Your task to perform on an android device: Open Amazon Image 0: 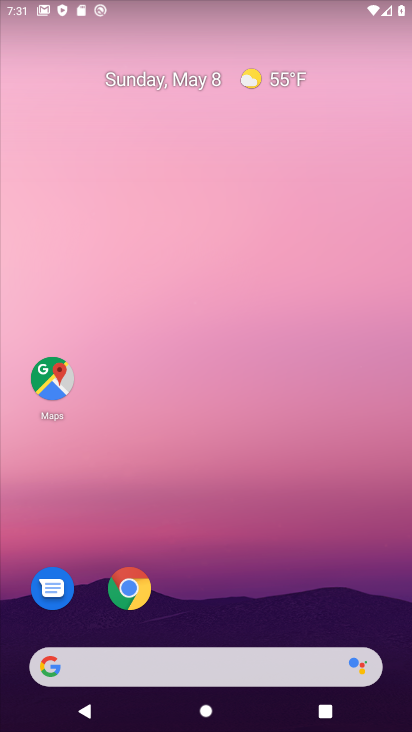
Step 0: drag from (325, 621) to (192, 142)
Your task to perform on an android device: Open Amazon Image 1: 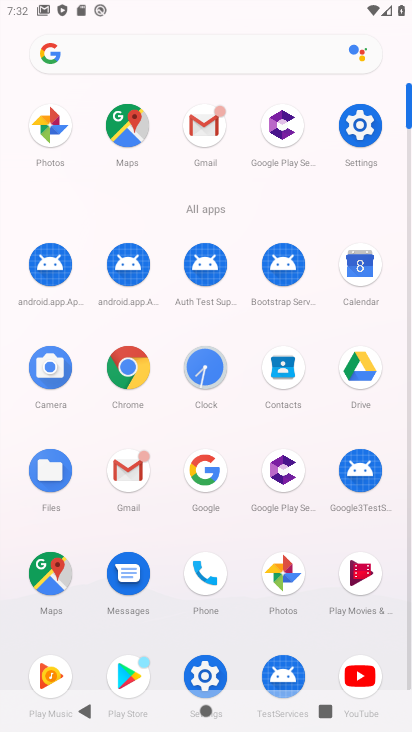
Step 1: click (146, 356)
Your task to perform on an android device: Open Amazon Image 2: 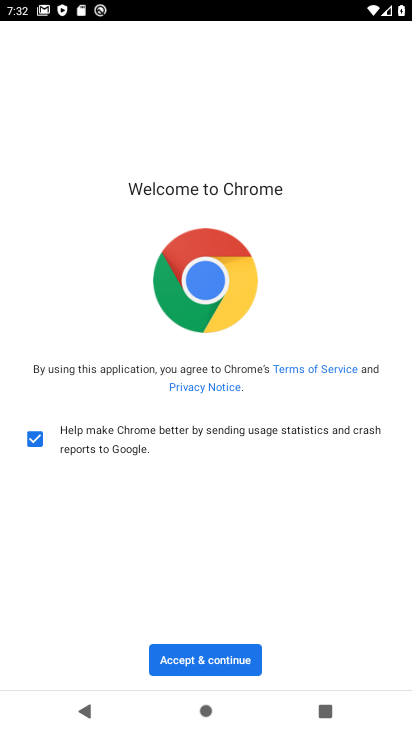
Step 2: click (233, 659)
Your task to perform on an android device: Open Amazon Image 3: 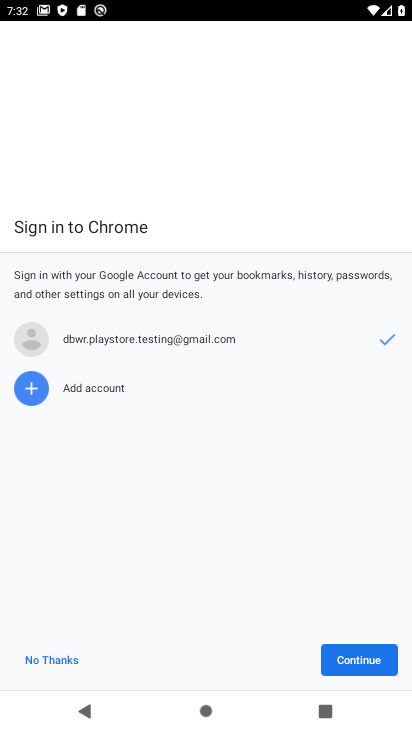
Step 3: click (356, 660)
Your task to perform on an android device: Open Amazon Image 4: 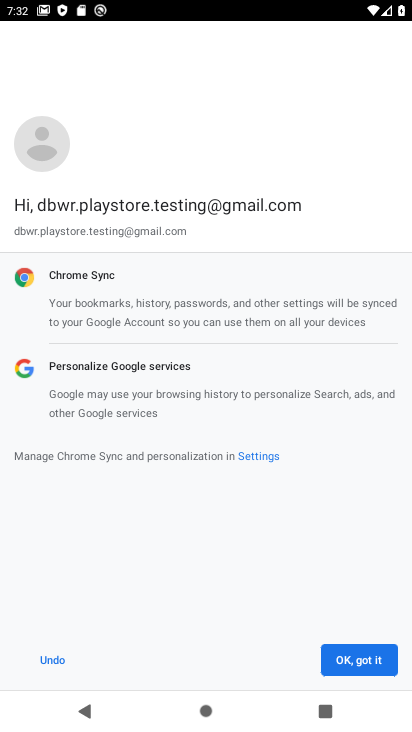
Step 4: click (352, 658)
Your task to perform on an android device: Open Amazon Image 5: 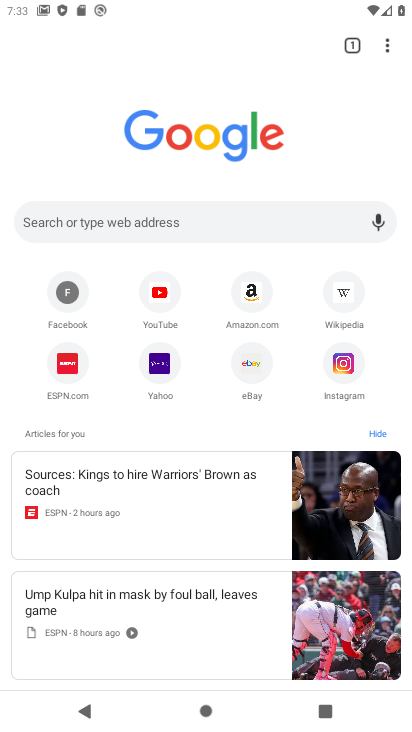
Step 5: click (244, 302)
Your task to perform on an android device: Open Amazon Image 6: 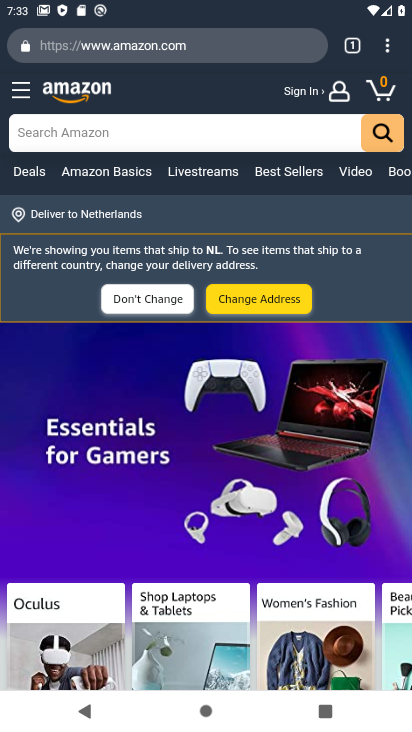
Step 6: task complete